Your task to perform on an android device: Empty the shopping cart on newegg. Add rayovac triple a to the cart on newegg, then select checkout. Image 0: 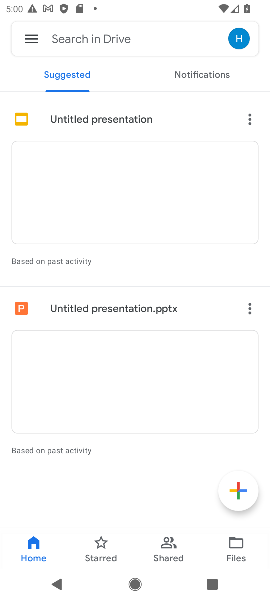
Step 0: press home button
Your task to perform on an android device: Empty the shopping cart on newegg. Add rayovac triple a to the cart on newegg, then select checkout. Image 1: 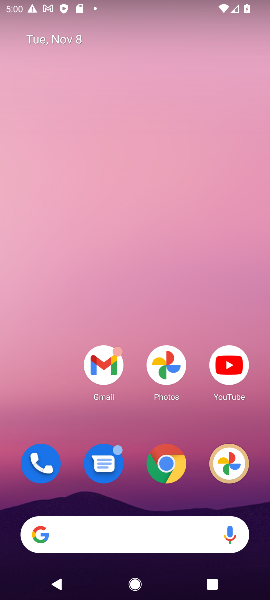
Step 1: click (160, 459)
Your task to perform on an android device: Empty the shopping cart on newegg. Add rayovac triple a to the cart on newegg, then select checkout. Image 2: 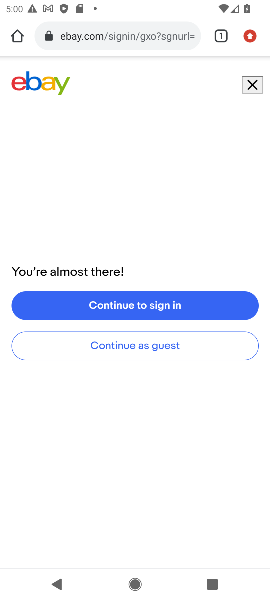
Step 2: click (130, 35)
Your task to perform on an android device: Empty the shopping cart on newegg. Add rayovac triple a to the cart on newegg, then select checkout. Image 3: 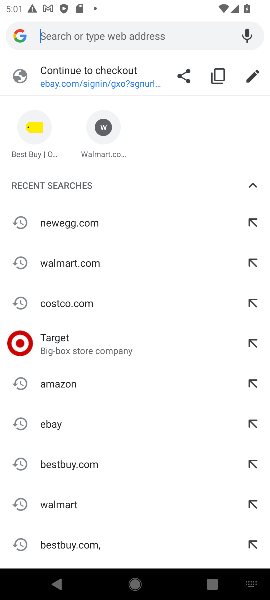
Step 3: click (82, 221)
Your task to perform on an android device: Empty the shopping cart on newegg. Add rayovac triple a to the cart on newegg, then select checkout. Image 4: 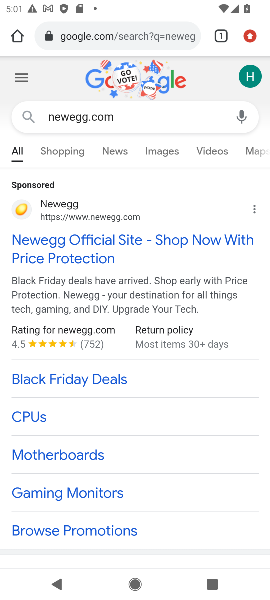
Step 4: click (55, 258)
Your task to perform on an android device: Empty the shopping cart on newegg. Add rayovac triple a to the cart on newegg, then select checkout. Image 5: 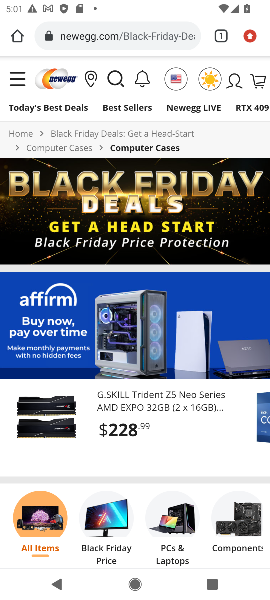
Step 5: click (259, 84)
Your task to perform on an android device: Empty the shopping cart on newegg. Add rayovac triple a to the cart on newegg, then select checkout. Image 6: 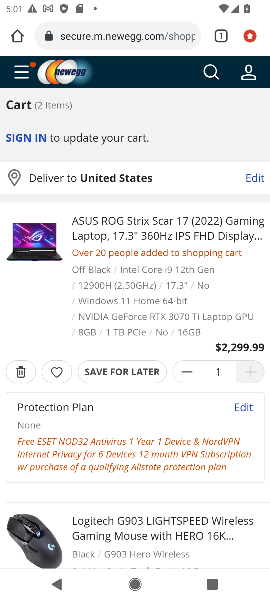
Step 6: click (16, 368)
Your task to perform on an android device: Empty the shopping cart on newegg. Add rayovac triple a to the cart on newegg, then select checkout. Image 7: 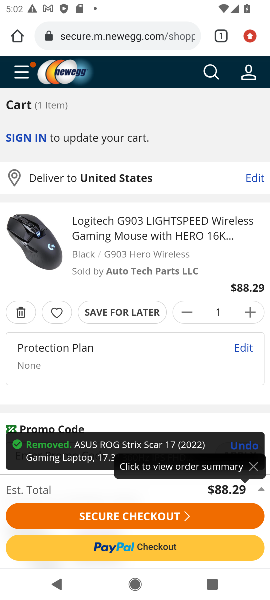
Step 7: click (18, 319)
Your task to perform on an android device: Empty the shopping cart on newegg. Add rayovac triple a to the cart on newegg, then select checkout. Image 8: 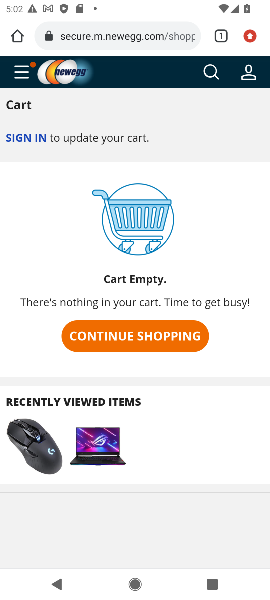
Step 8: click (207, 70)
Your task to perform on an android device: Empty the shopping cart on newegg. Add rayovac triple a to the cart on newegg, then select checkout. Image 9: 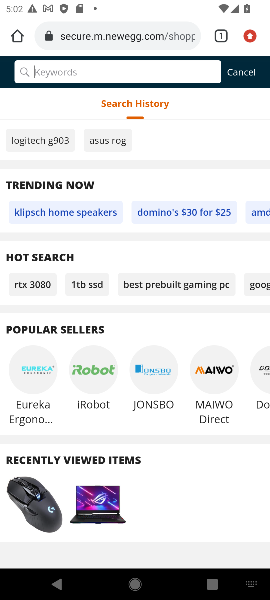
Step 9: type "rayovac triple a"
Your task to perform on an android device: Empty the shopping cart on newegg. Add rayovac triple a to the cart on newegg, then select checkout. Image 10: 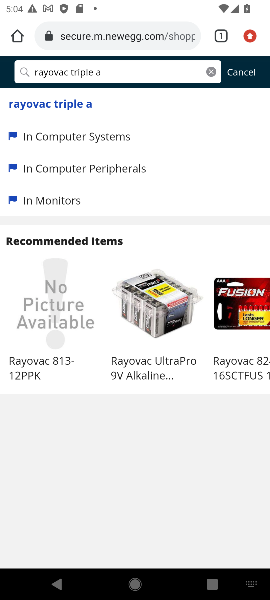
Step 10: task complete